Your task to perform on an android device: open app "Move to iOS" (install if not already installed) and go to login screen Image 0: 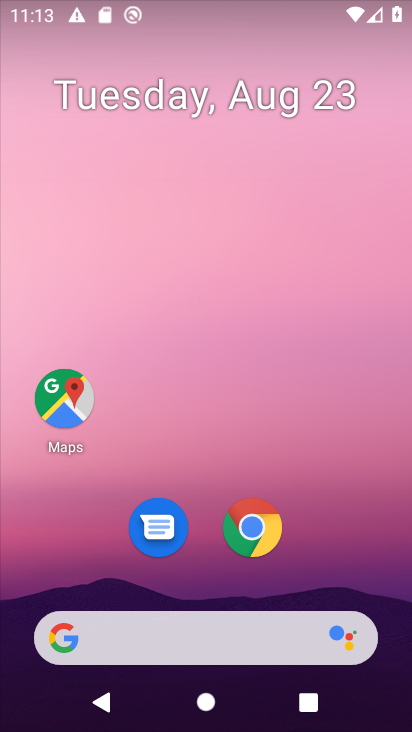
Step 0: click (291, 56)
Your task to perform on an android device: open app "Move to iOS" (install if not already installed) and go to login screen Image 1: 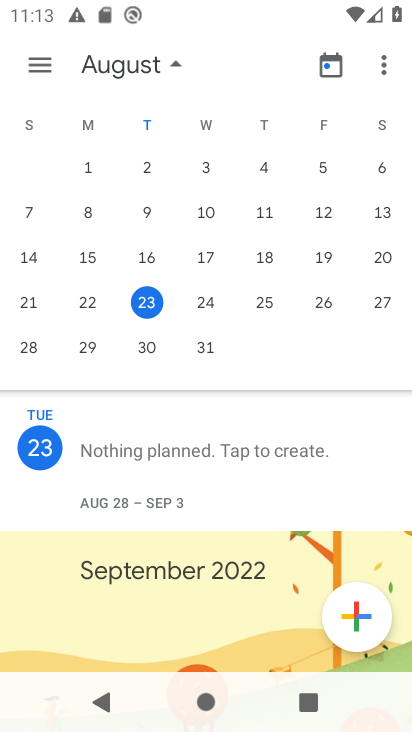
Step 1: press back button
Your task to perform on an android device: open app "Move to iOS" (install if not already installed) and go to login screen Image 2: 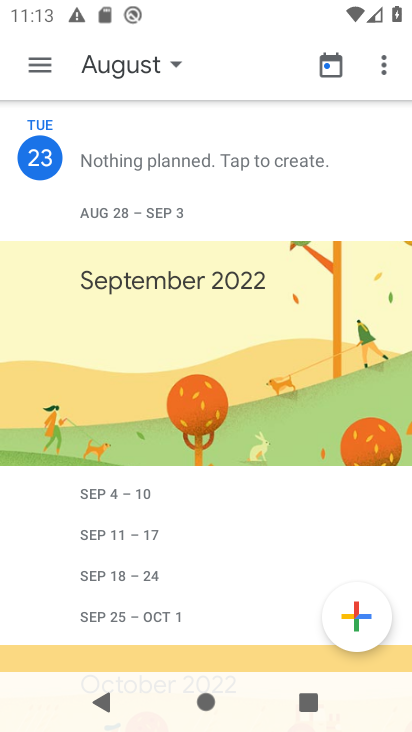
Step 2: press back button
Your task to perform on an android device: open app "Move to iOS" (install if not already installed) and go to login screen Image 3: 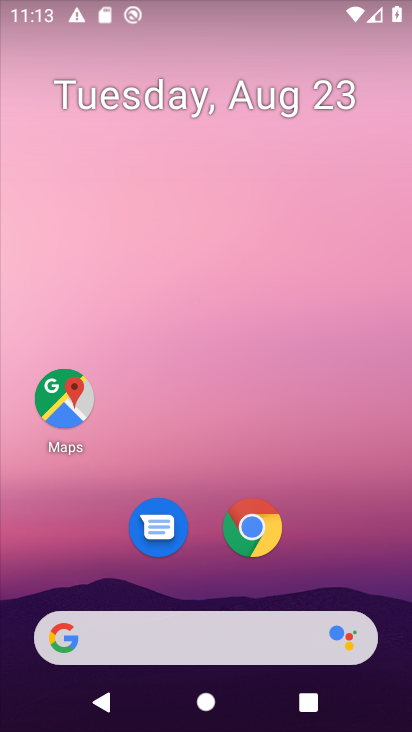
Step 3: drag from (203, 577) to (215, 22)
Your task to perform on an android device: open app "Move to iOS" (install if not already installed) and go to login screen Image 4: 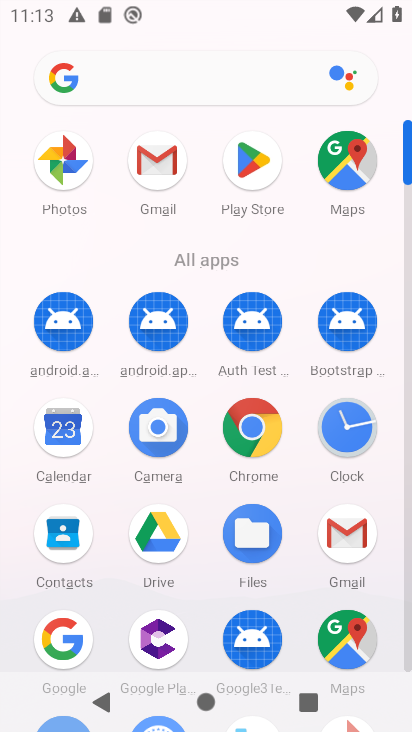
Step 4: click (259, 163)
Your task to perform on an android device: open app "Move to iOS" (install if not already installed) and go to login screen Image 5: 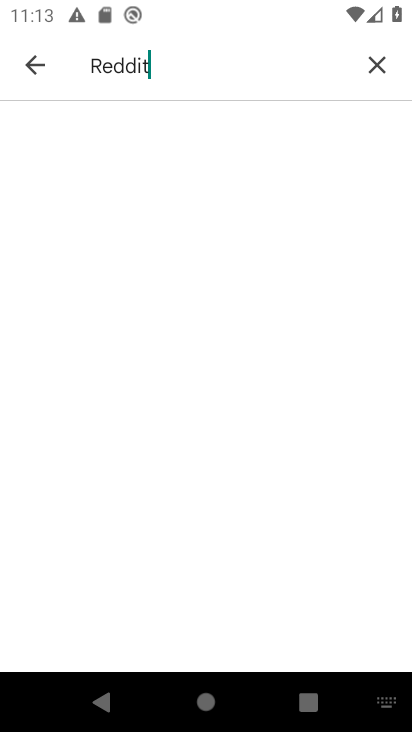
Step 5: click (369, 54)
Your task to perform on an android device: open app "Move to iOS" (install if not already installed) and go to login screen Image 6: 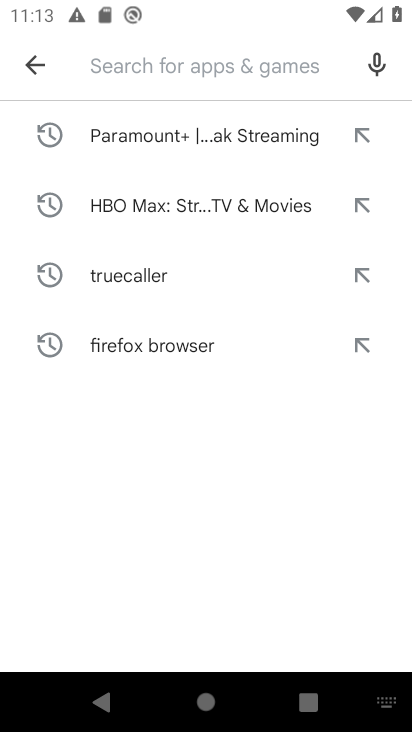
Step 6: click (181, 59)
Your task to perform on an android device: open app "Move to iOS" (install if not already installed) and go to login screen Image 7: 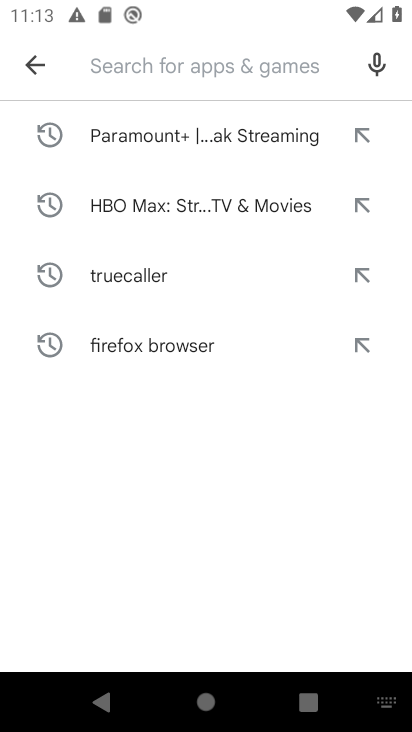
Step 7: type "ios"
Your task to perform on an android device: open app "Move to iOS" (install if not already installed) and go to login screen Image 8: 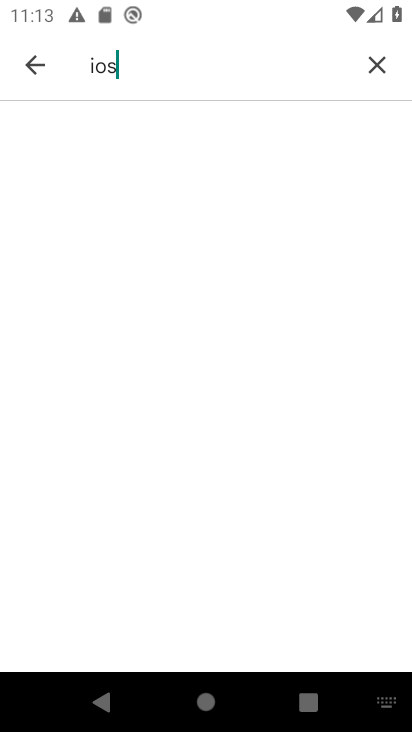
Step 8: click (374, 63)
Your task to perform on an android device: open app "Move to iOS" (install if not already installed) and go to login screen Image 9: 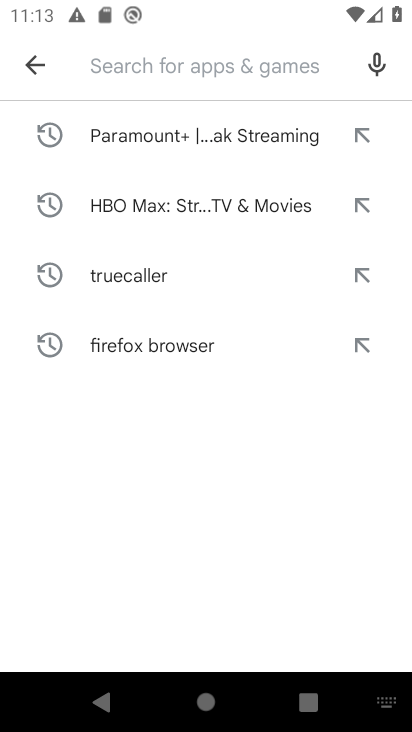
Step 9: click (117, 282)
Your task to perform on an android device: open app "Move to iOS" (install if not already installed) and go to login screen Image 10: 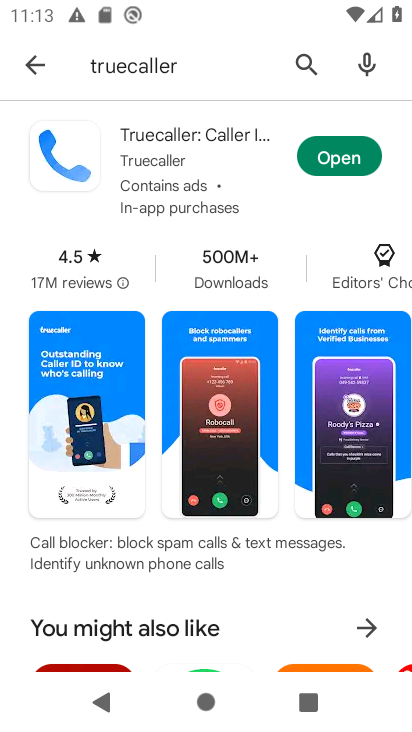
Step 10: click (307, 56)
Your task to perform on an android device: open app "Move to iOS" (install if not already installed) and go to login screen Image 11: 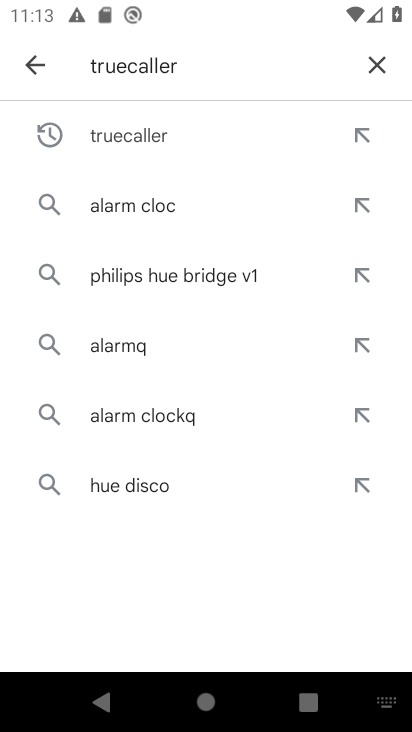
Step 11: click (378, 52)
Your task to perform on an android device: open app "Move to iOS" (install if not already installed) and go to login screen Image 12: 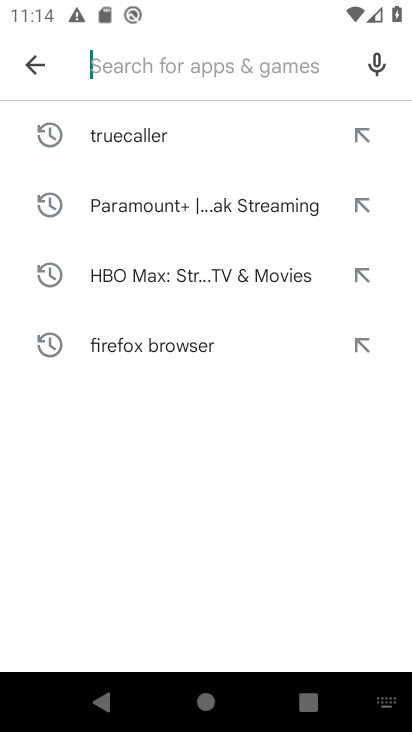
Step 12: type "ios"
Your task to perform on an android device: open app "Move to iOS" (install if not already installed) and go to login screen Image 13: 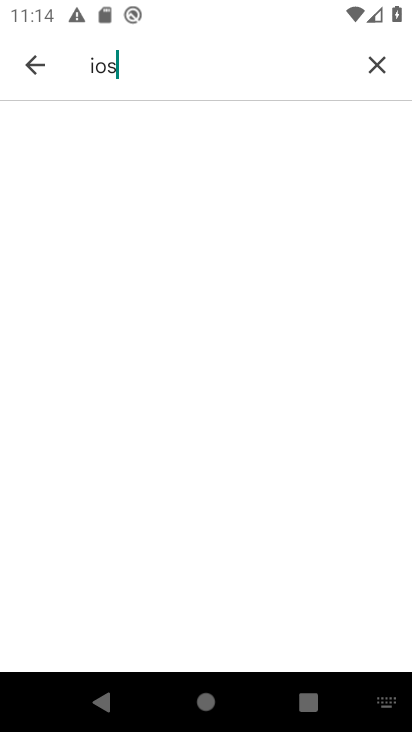
Step 13: task complete